Your task to perform on an android device: move an email to a new category in the gmail app Image 0: 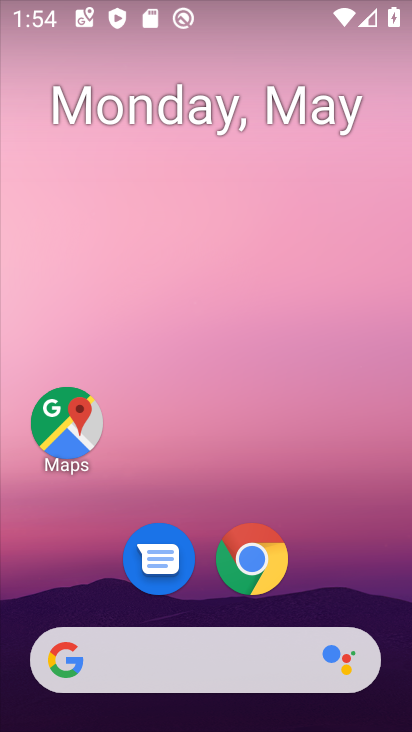
Step 0: drag from (147, 639) to (160, 142)
Your task to perform on an android device: move an email to a new category in the gmail app Image 1: 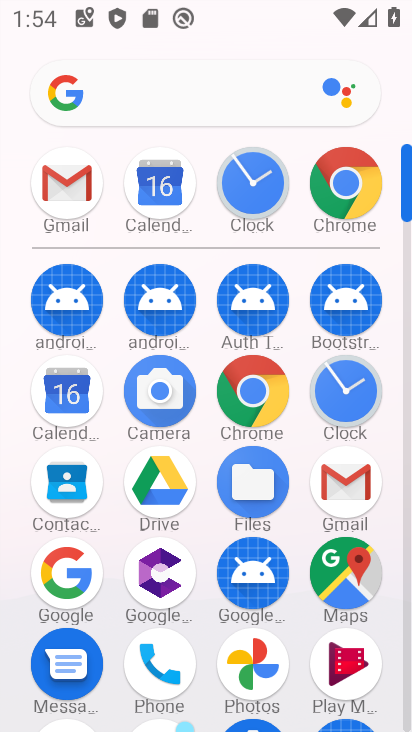
Step 1: click (348, 477)
Your task to perform on an android device: move an email to a new category in the gmail app Image 2: 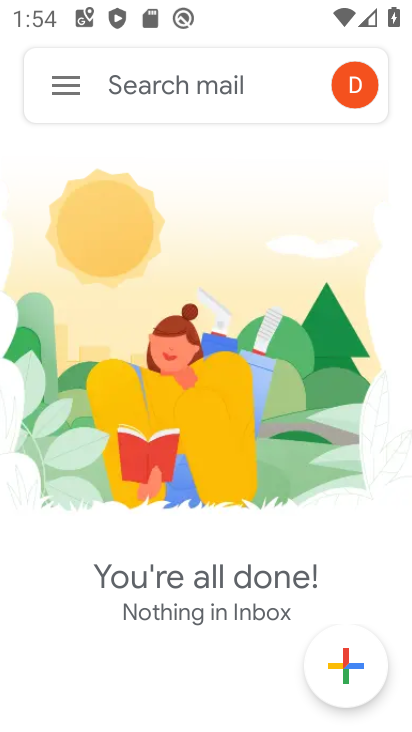
Step 2: click (60, 80)
Your task to perform on an android device: move an email to a new category in the gmail app Image 3: 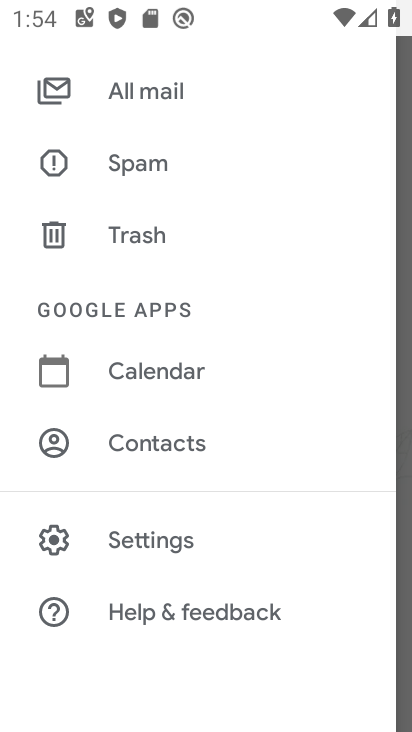
Step 3: click (222, 95)
Your task to perform on an android device: move an email to a new category in the gmail app Image 4: 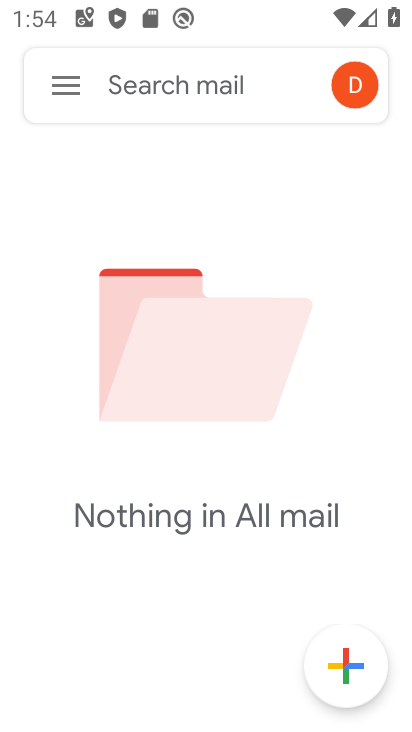
Step 4: task complete